Your task to perform on an android device: Go to Wikipedia Image 0: 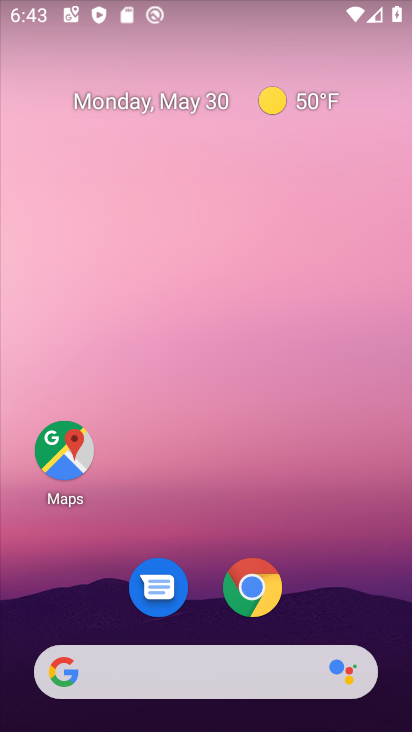
Step 0: drag from (303, 547) to (182, 37)
Your task to perform on an android device: Go to Wikipedia Image 1: 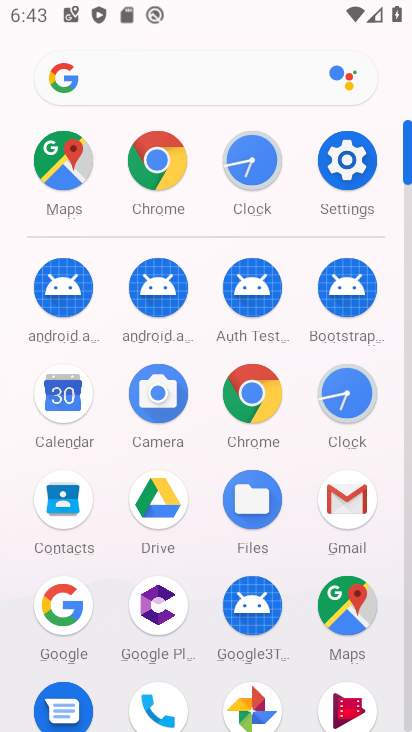
Step 1: click (155, 152)
Your task to perform on an android device: Go to Wikipedia Image 2: 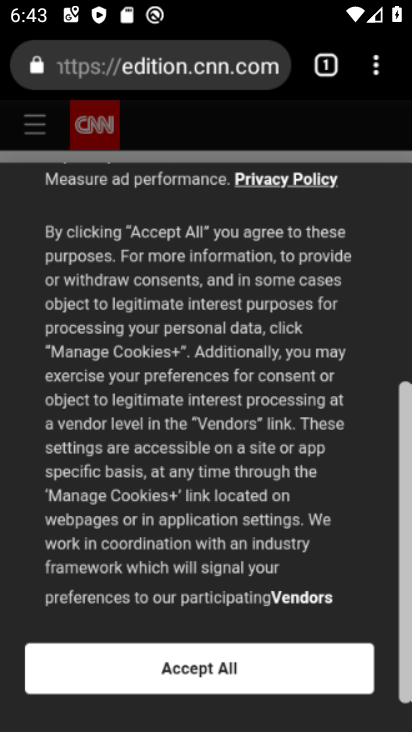
Step 2: click (212, 54)
Your task to perform on an android device: Go to Wikipedia Image 3: 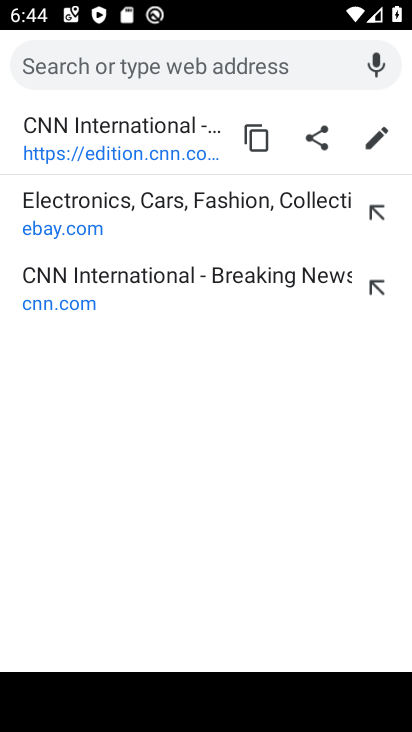
Step 3: type "Wikipedia"
Your task to perform on an android device: Go to Wikipedia Image 4: 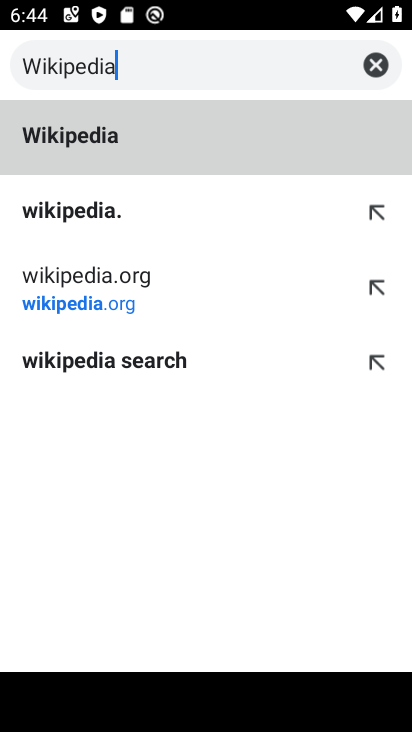
Step 4: type ""
Your task to perform on an android device: Go to Wikipedia Image 5: 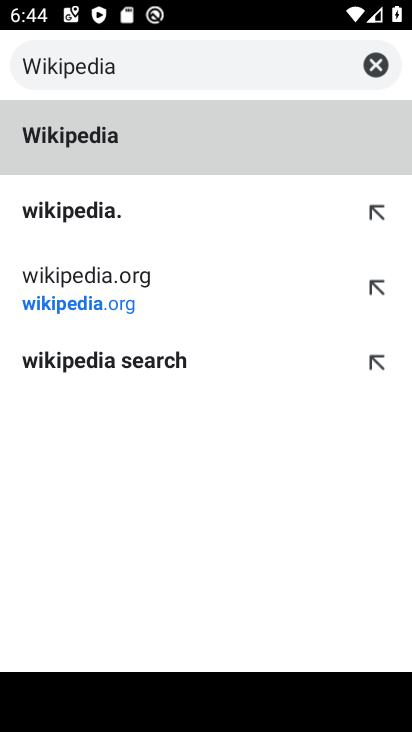
Step 5: click (68, 294)
Your task to perform on an android device: Go to Wikipedia Image 6: 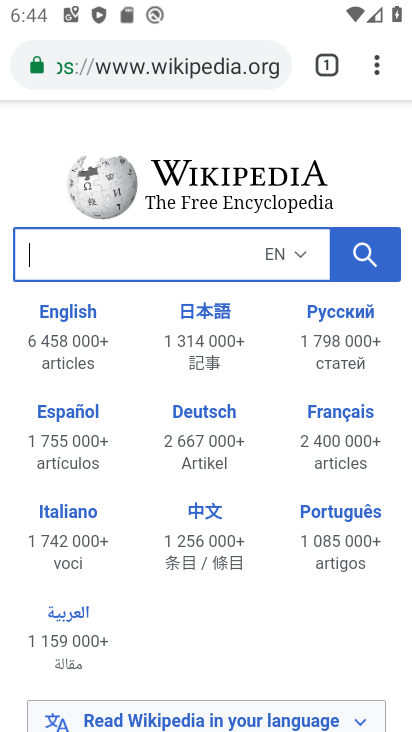
Step 6: task complete